Your task to perform on an android device: Open Chrome and go to settings Image 0: 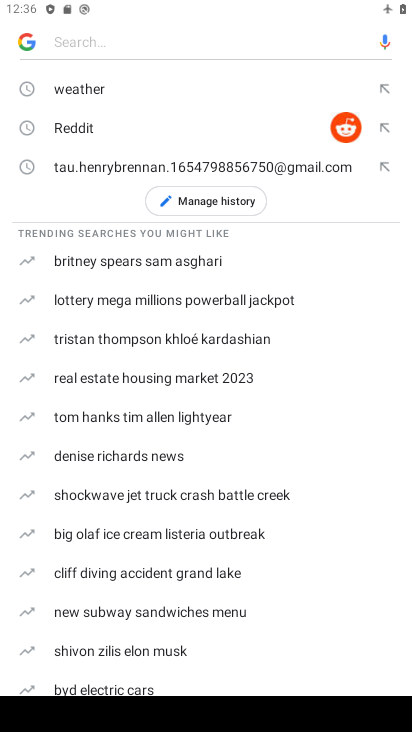
Step 0: press home button
Your task to perform on an android device: Open Chrome and go to settings Image 1: 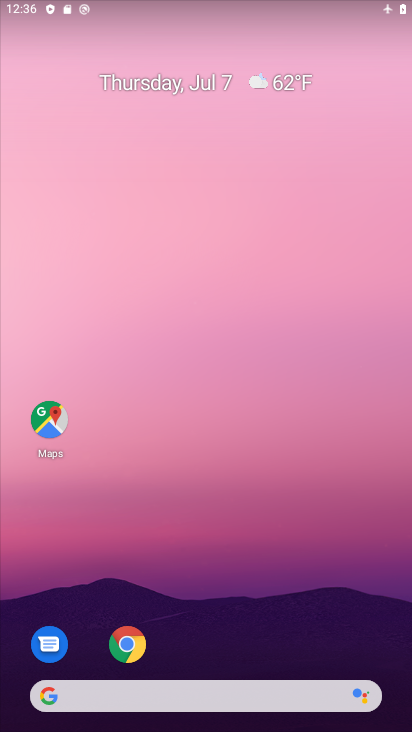
Step 1: click (132, 653)
Your task to perform on an android device: Open Chrome and go to settings Image 2: 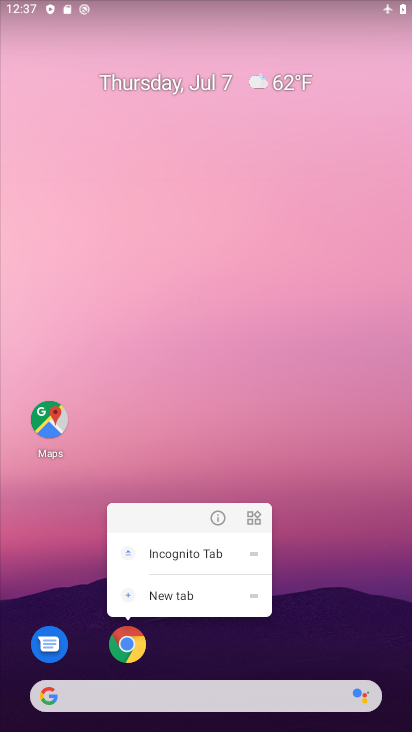
Step 2: click (123, 648)
Your task to perform on an android device: Open Chrome and go to settings Image 3: 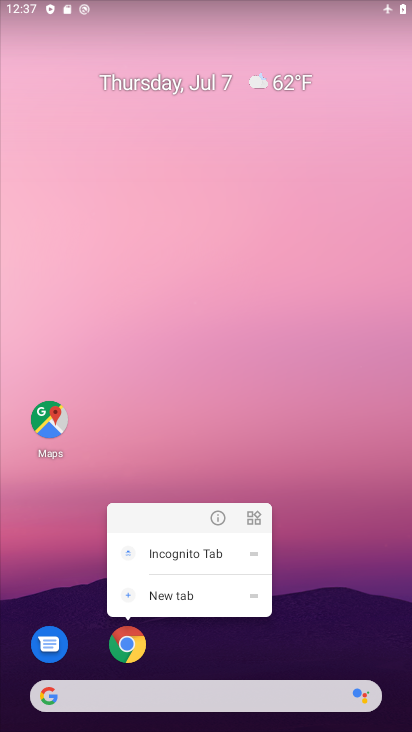
Step 3: click (124, 647)
Your task to perform on an android device: Open Chrome and go to settings Image 4: 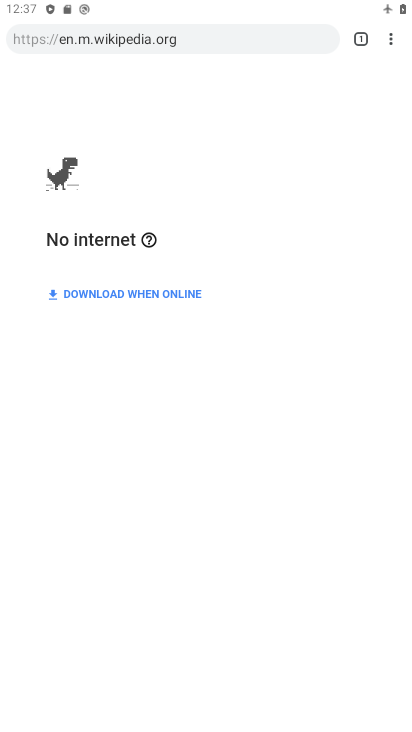
Step 4: click (390, 33)
Your task to perform on an android device: Open Chrome and go to settings Image 5: 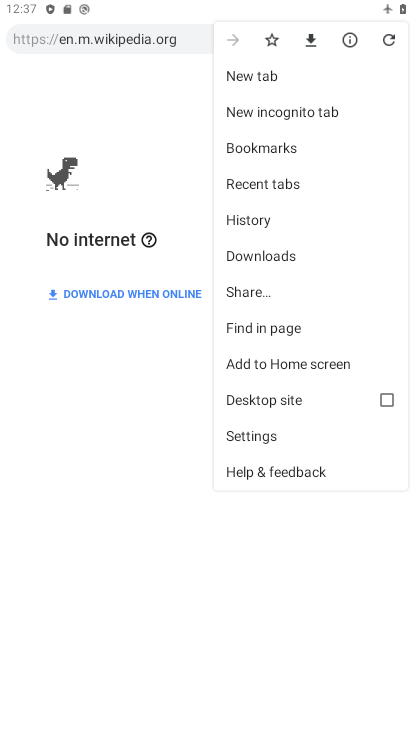
Step 5: click (236, 431)
Your task to perform on an android device: Open Chrome and go to settings Image 6: 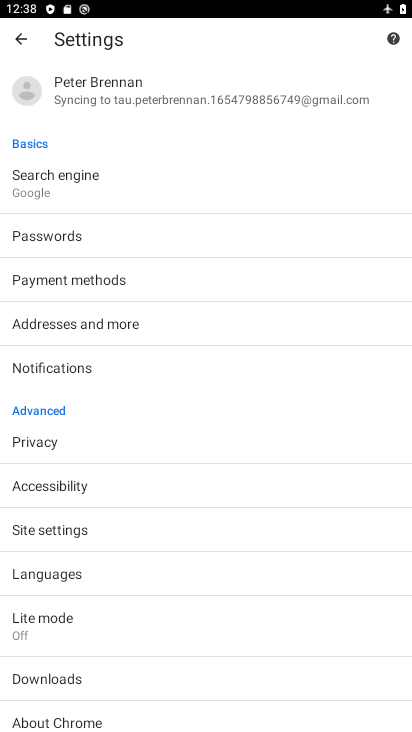
Step 6: task complete